Your task to perform on an android device: Open Chrome and go to the settings page Image 0: 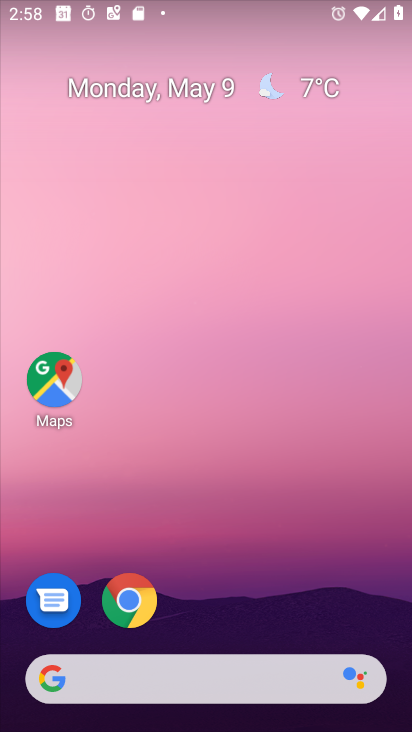
Step 0: click (156, 610)
Your task to perform on an android device: Open Chrome and go to the settings page Image 1: 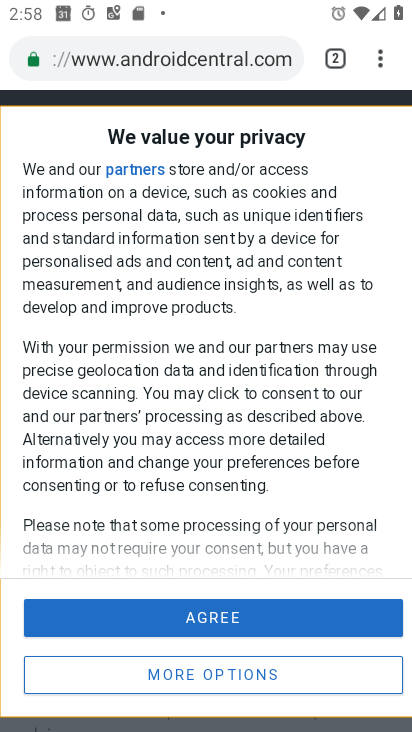
Step 1: task complete